Your task to perform on an android device: Play the last video I watched on Youtube Image 0: 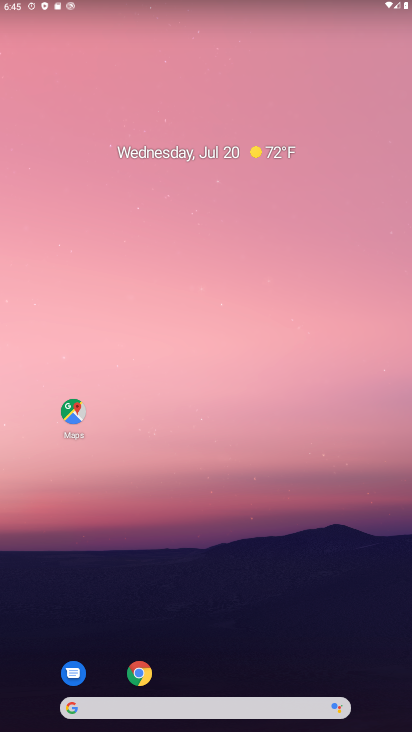
Step 0: drag from (320, 561) to (163, 17)
Your task to perform on an android device: Play the last video I watched on Youtube Image 1: 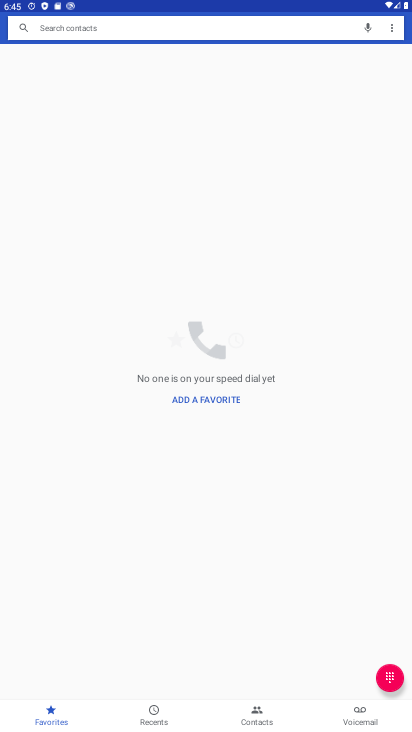
Step 1: press home button
Your task to perform on an android device: Play the last video I watched on Youtube Image 2: 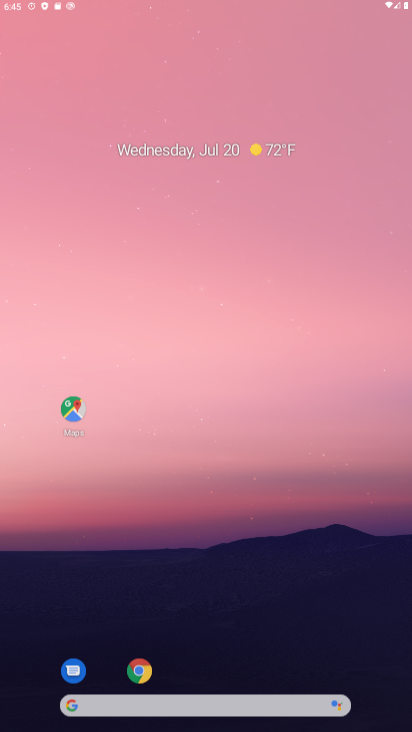
Step 2: drag from (365, 705) to (199, 30)
Your task to perform on an android device: Play the last video I watched on Youtube Image 3: 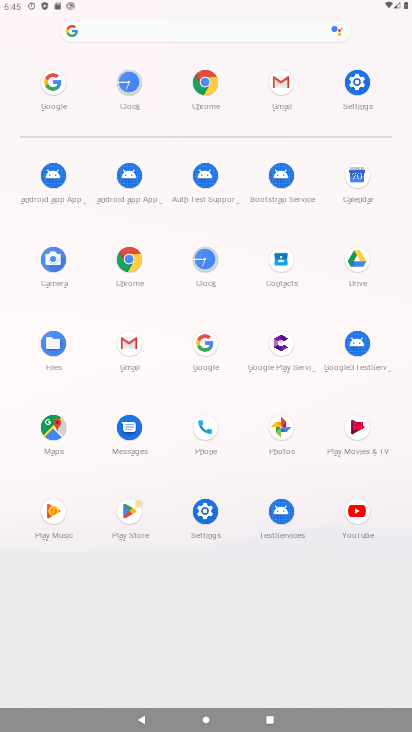
Step 3: click (351, 511)
Your task to perform on an android device: Play the last video I watched on Youtube Image 4: 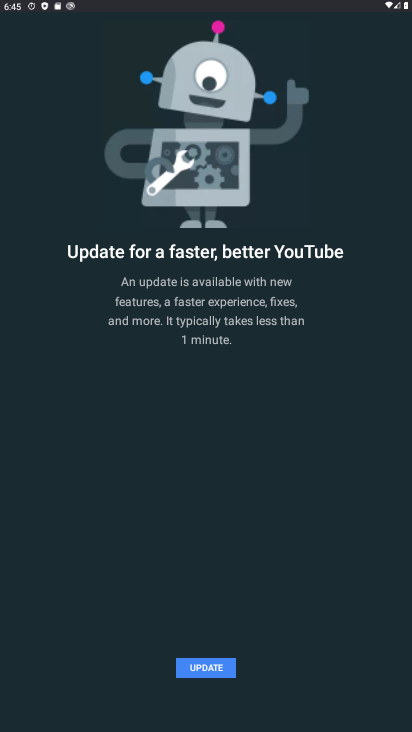
Step 4: click (203, 666)
Your task to perform on an android device: Play the last video I watched on Youtube Image 5: 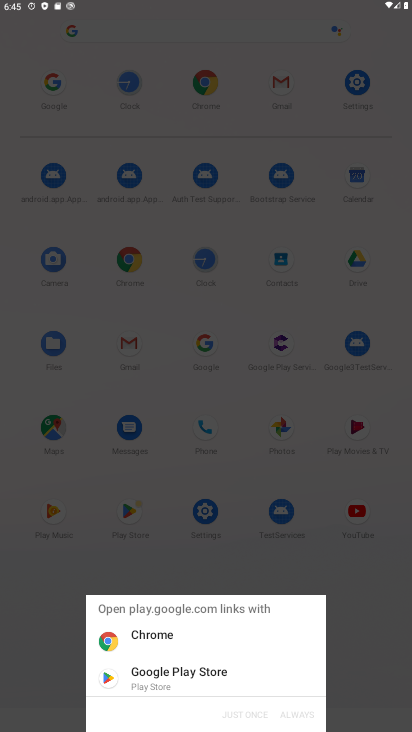
Step 5: click (129, 669)
Your task to perform on an android device: Play the last video I watched on Youtube Image 6: 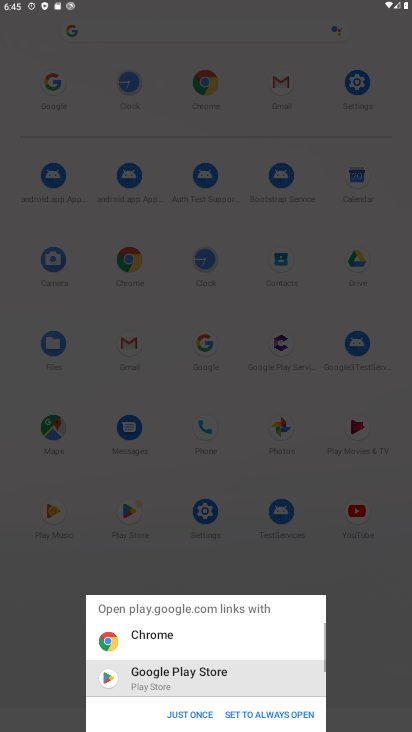
Step 6: click (173, 716)
Your task to perform on an android device: Play the last video I watched on Youtube Image 7: 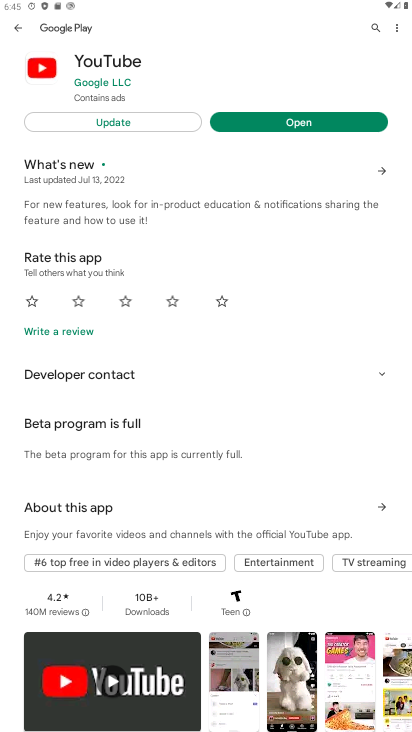
Step 7: click (116, 123)
Your task to perform on an android device: Play the last video I watched on Youtube Image 8: 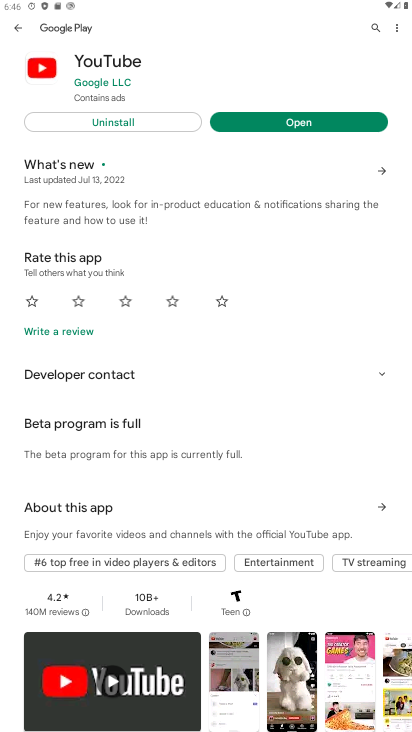
Step 8: click (308, 120)
Your task to perform on an android device: Play the last video I watched on Youtube Image 9: 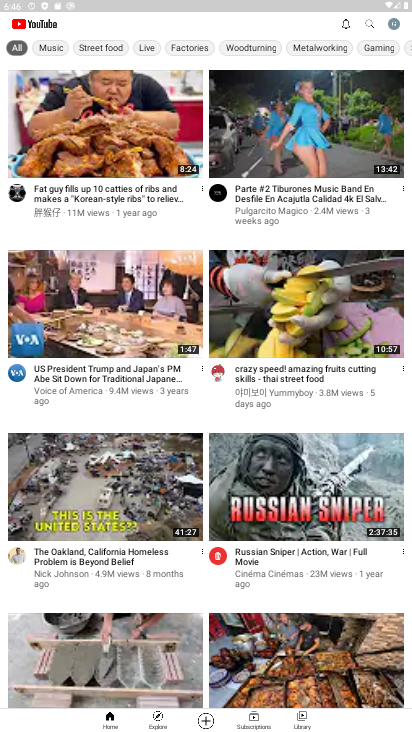
Step 9: task complete